Your task to perform on an android device: find which apps use the phone's location Image 0: 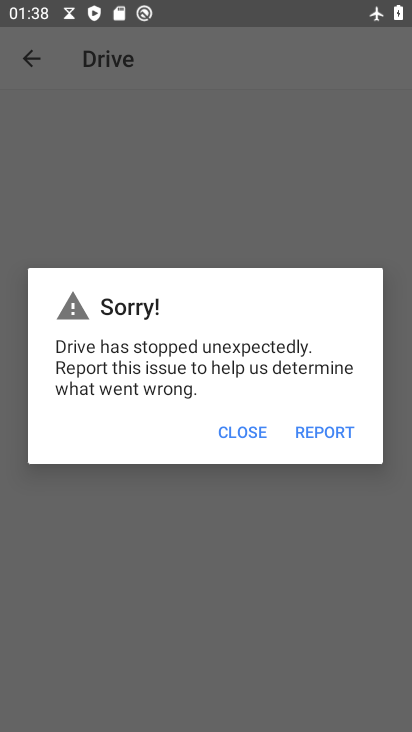
Step 0: press home button
Your task to perform on an android device: find which apps use the phone's location Image 1: 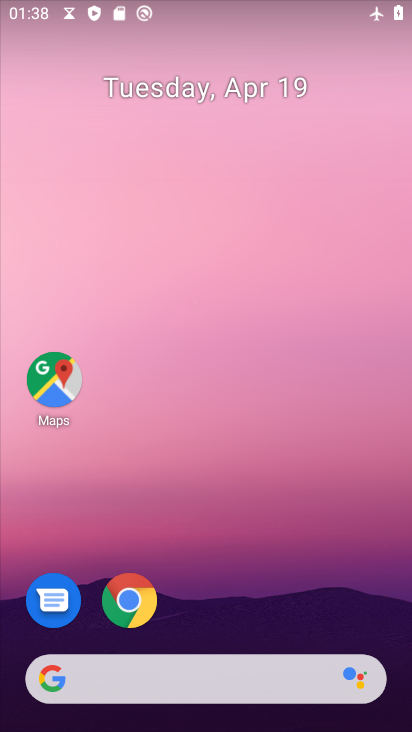
Step 1: drag from (204, 637) to (150, 31)
Your task to perform on an android device: find which apps use the phone's location Image 2: 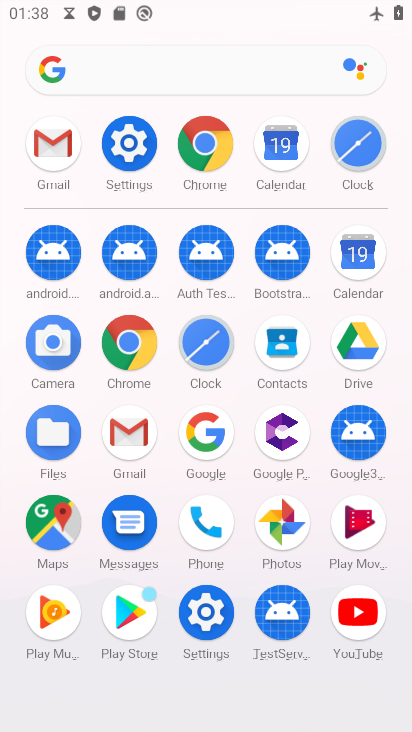
Step 2: click (220, 613)
Your task to perform on an android device: find which apps use the phone's location Image 3: 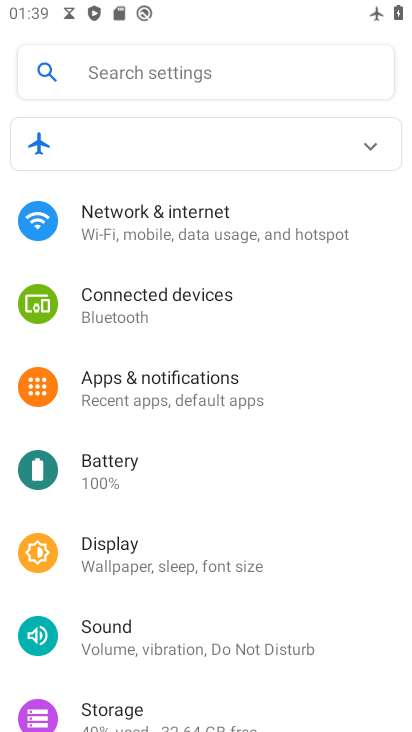
Step 3: drag from (135, 643) to (105, 235)
Your task to perform on an android device: find which apps use the phone's location Image 4: 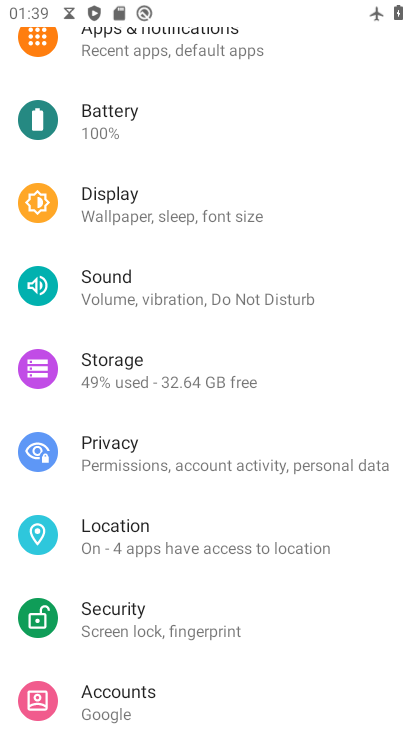
Step 4: click (128, 547)
Your task to perform on an android device: find which apps use the phone's location Image 5: 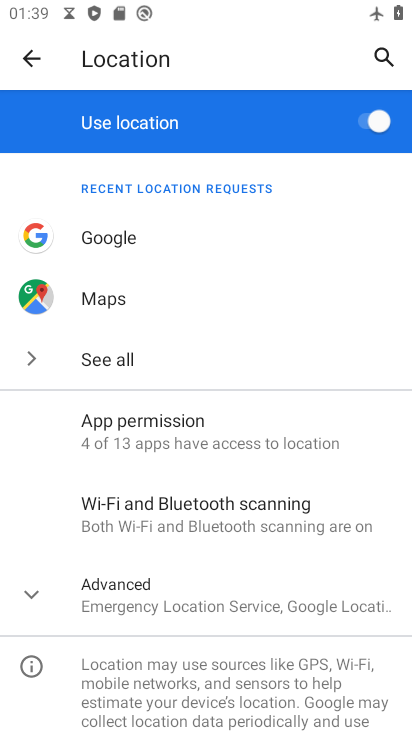
Step 5: click (140, 445)
Your task to perform on an android device: find which apps use the phone's location Image 6: 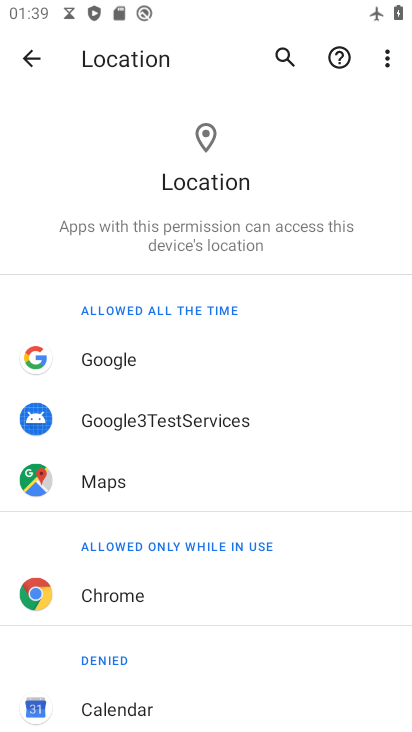
Step 6: task complete